Your task to perform on an android device: Go to notification settings Image 0: 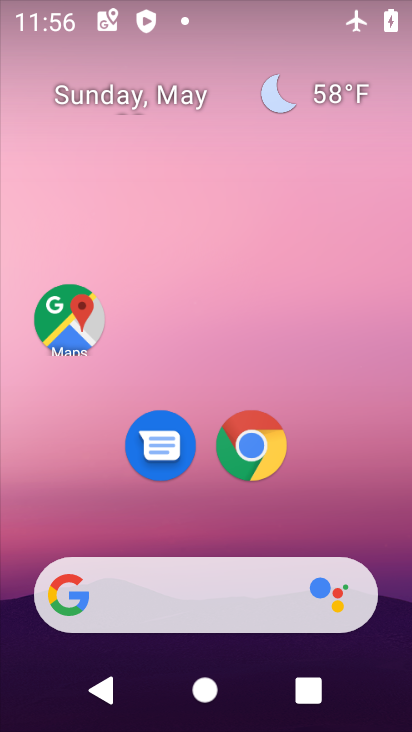
Step 0: drag from (213, 526) to (229, 128)
Your task to perform on an android device: Go to notification settings Image 1: 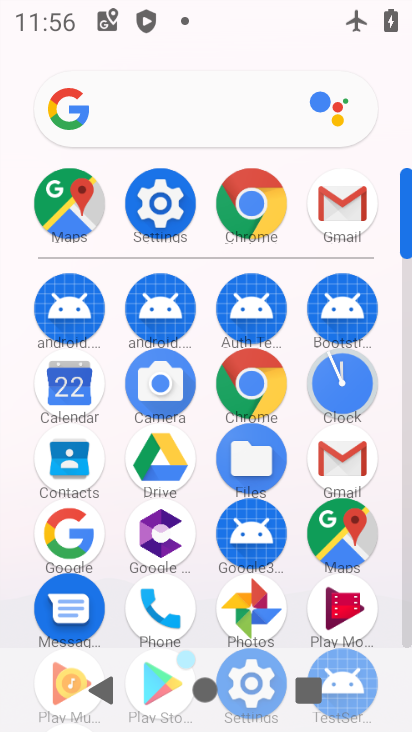
Step 1: click (158, 197)
Your task to perform on an android device: Go to notification settings Image 2: 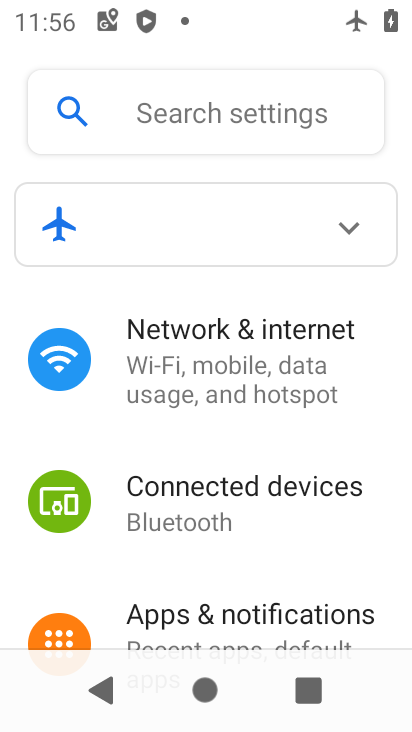
Step 2: click (274, 610)
Your task to perform on an android device: Go to notification settings Image 3: 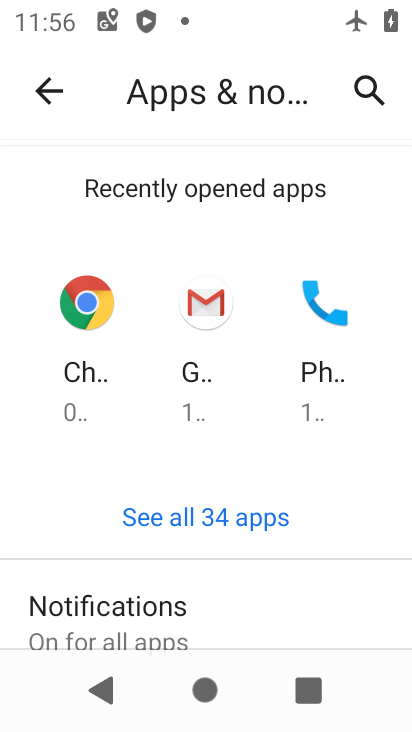
Step 3: click (202, 593)
Your task to perform on an android device: Go to notification settings Image 4: 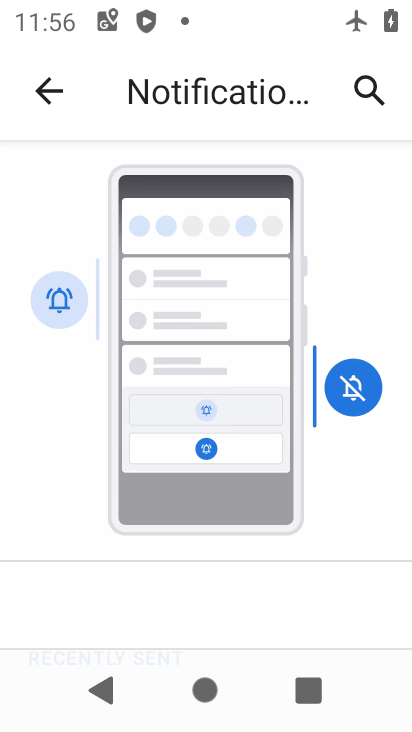
Step 4: drag from (241, 615) to (253, 238)
Your task to perform on an android device: Go to notification settings Image 5: 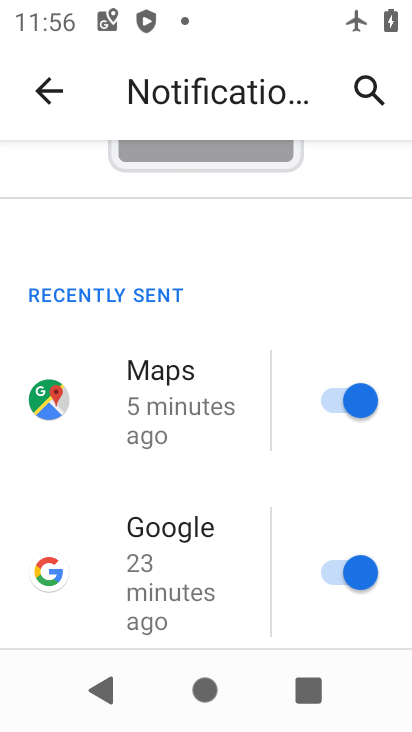
Step 5: drag from (237, 615) to (242, 282)
Your task to perform on an android device: Go to notification settings Image 6: 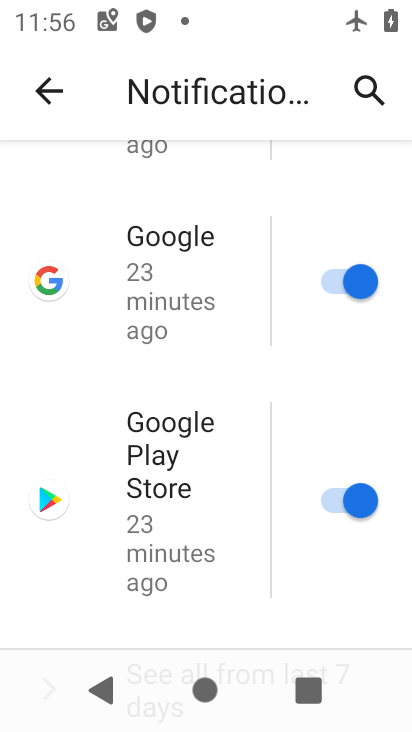
Step 6: drag from (221, 608) to (250, 242)
Your task to perform on an android device: Go to notification settings Image 7: 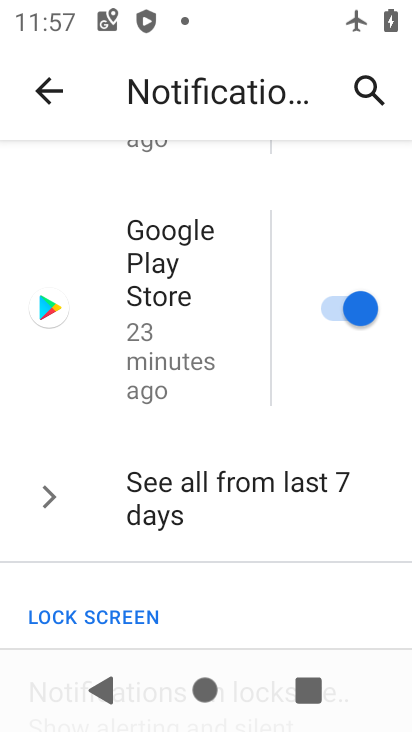
Step 7: drag from (197, 606) to (193, 157)
Your task to perform on an android device: Go to notification settings Image 8: 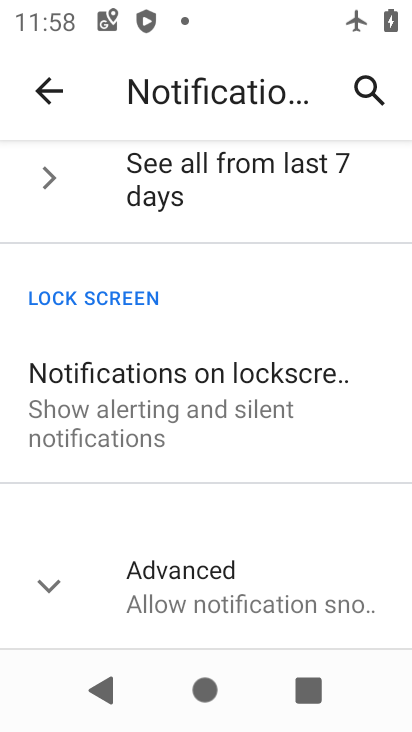
Step 8: click (52, 575)
Your task to perform on an android device: Go to notification settings Image 9: 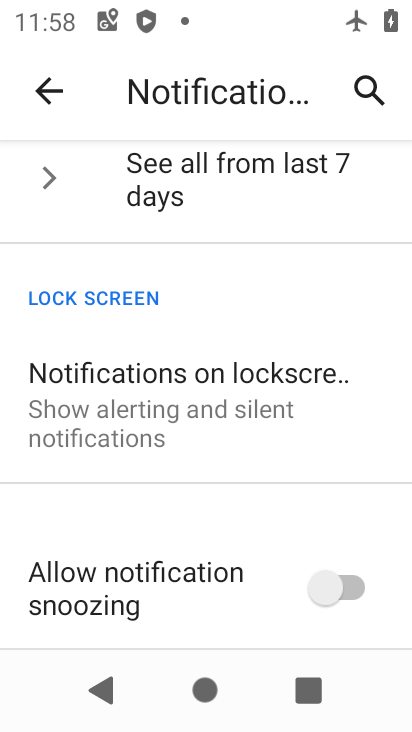
Step 9: task complete